Your task to perform on an android device: turn vacation reply on in the gmail app Image 0: 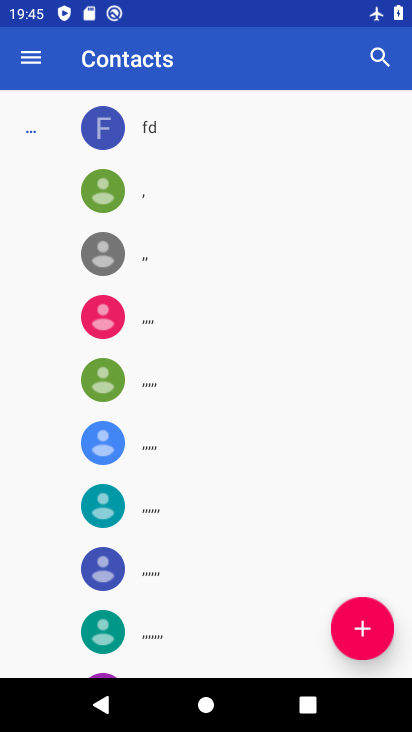
Step 0: press home button
Your task to perform on an android device: turn vacation reply on in the gmail app Image 1: 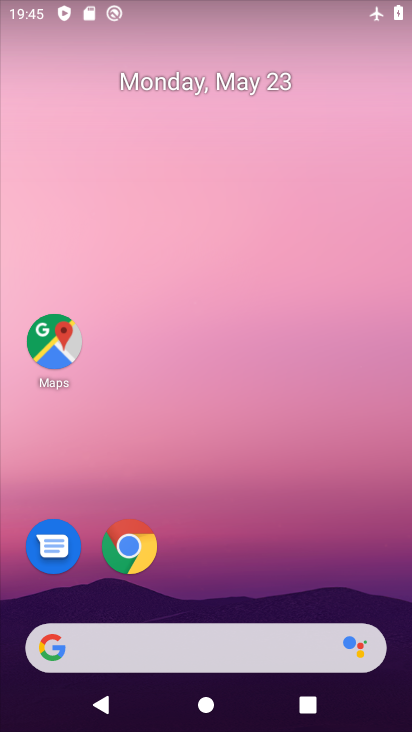
Step 1: drag from (389, 574) to (391, 183)
Your task to perform on an android device: turn vacation reply on in the gmail app Image 2: 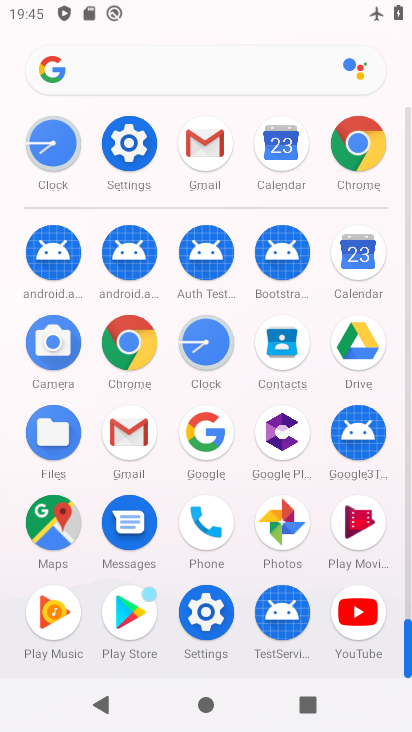
Step 2: click (130, 450)
Your task to perform on an android device: turn vacation reply on in the gmail app Image 3: 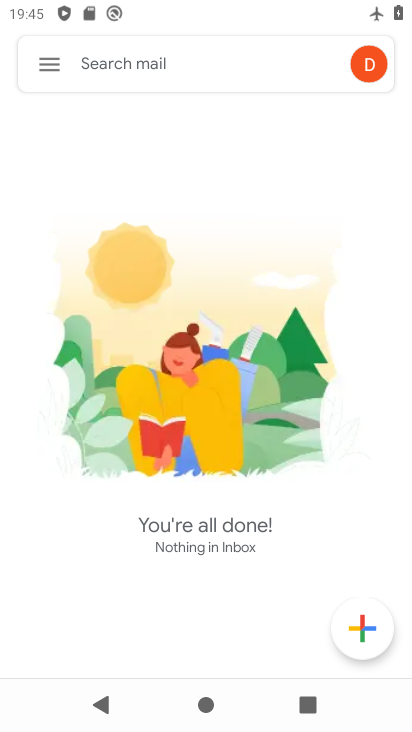
Step 3: click (48, 73)
Your task to perform on an android device: turn vacation reply on in the gmail app Image 4: 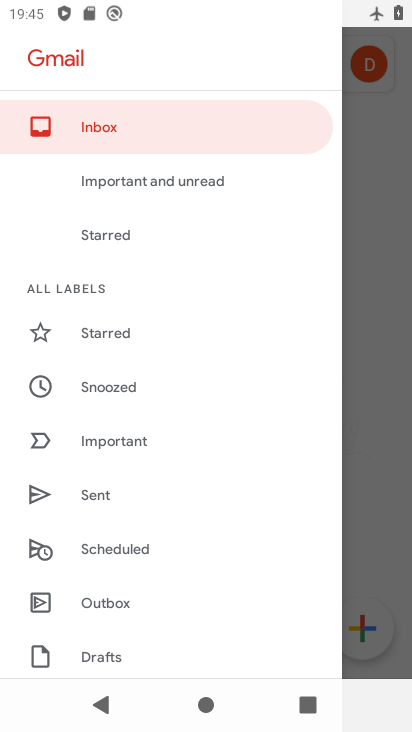
Step 4: drag from (236, 420) to (241, 349)
Your task to perform on an android device: turn vacation reply on in the gmail app Image 5: 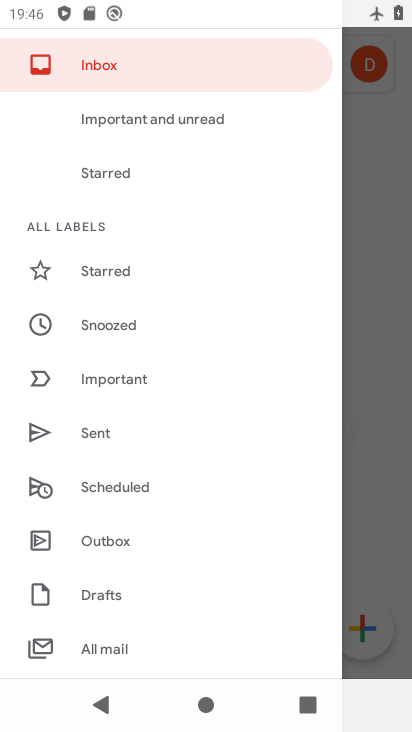
Step 5: drag from (259, 474) to (263, 392)
Your task to perform on an android device: turn vacation reply on in the gmail app Image 6: 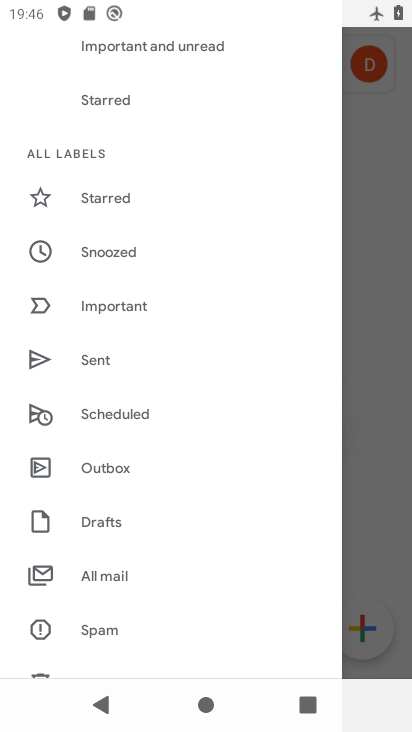
Step 6: drag from (263, 462) to (265, 390)
Your task to perform on an android device: turn vacation reply on in the gmail app Image 7: 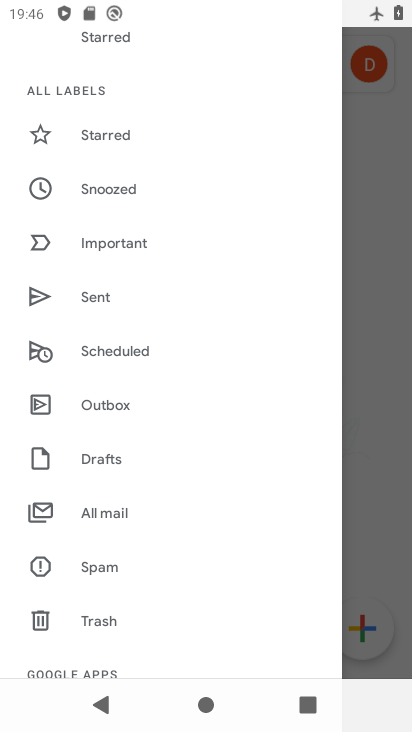
Step 7: drag from (262, 484) to (266, 415)
Your task to perform on an android device: turn vacation reply on in the gmail app Image 8: 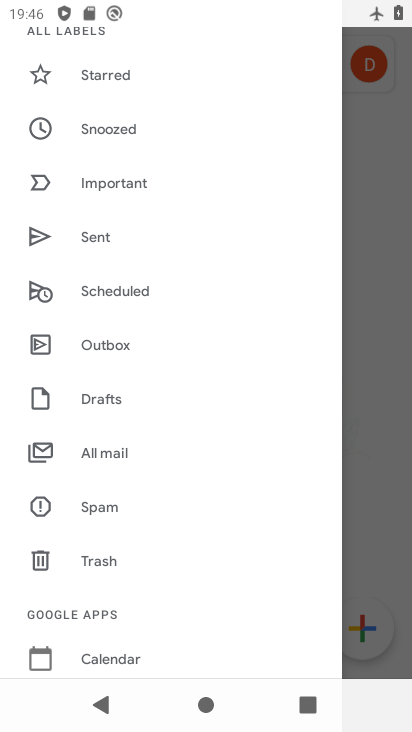
Step 8: drag from (279, 521) to (284, 444)
Your task to perform on an android device: turn vacation reply on in the gmail app Image 9: 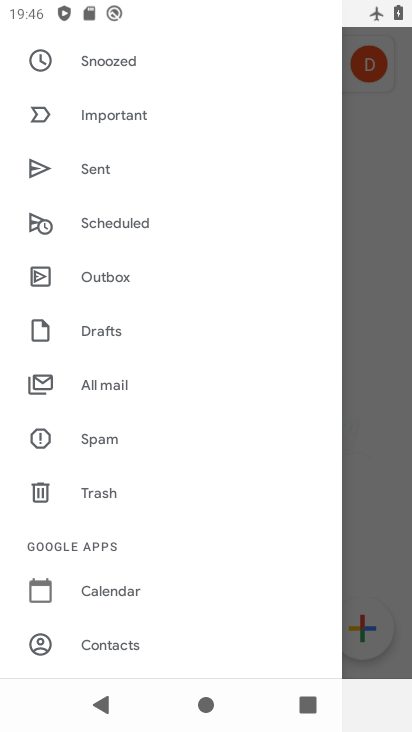
Step 9: drag from (273, 525) to (272, 415)
Your task to perform on an android device: turn vacation reply on in the gmail app Image 10: 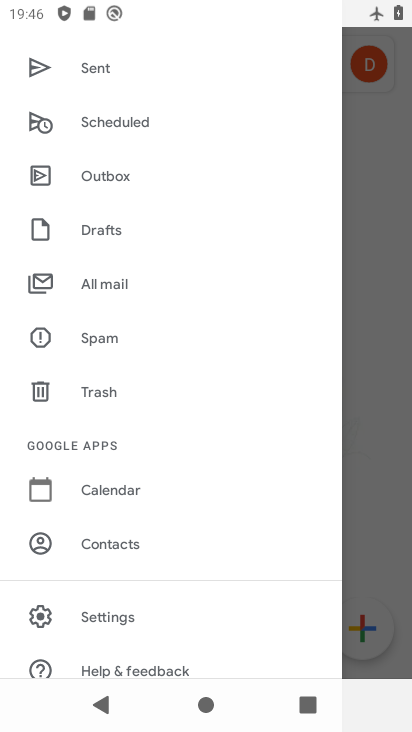
Step 10: drag from (248, 584) to (251, 484)
Your task to perform on an android device: turn vacation reply on in the gmail app Image 11: 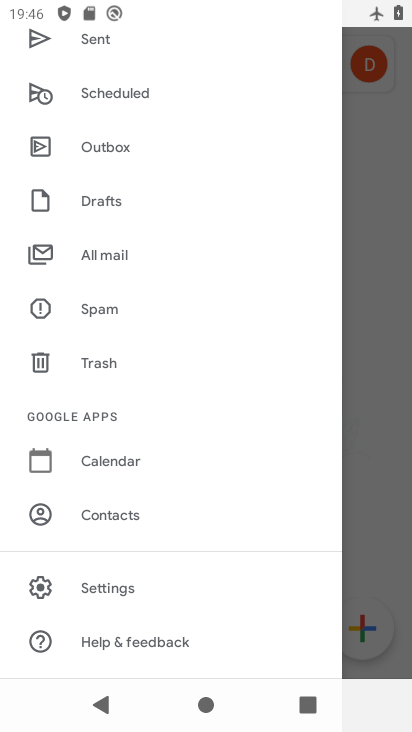
Step 11: click (184, 584)
Your task to perform on an android device: turn vacation reply on in the gmail app Image 12: 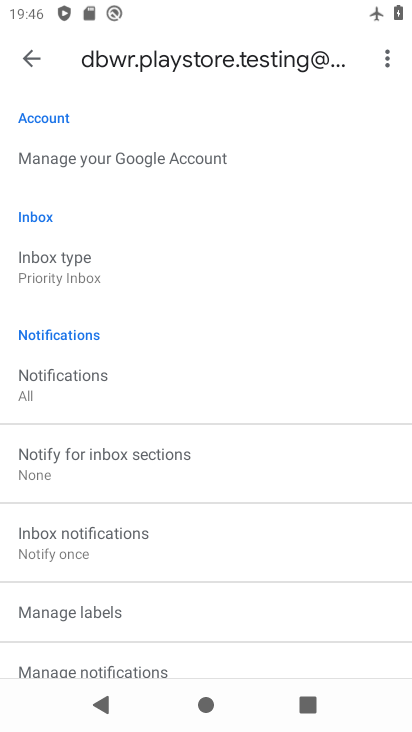
Step 12: drag from (225, 624) to (234, 531)
Your task to perform on an android device: turn vacation reply on in the gmail app Image 13: 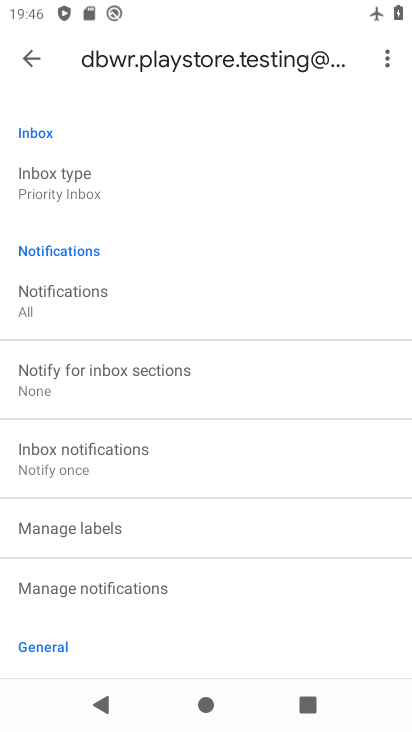
Step 13: drag from (251, 605) to (250, 532)
Your task to perform on an android device: turn vacation reply on in the gmail app Image 14: 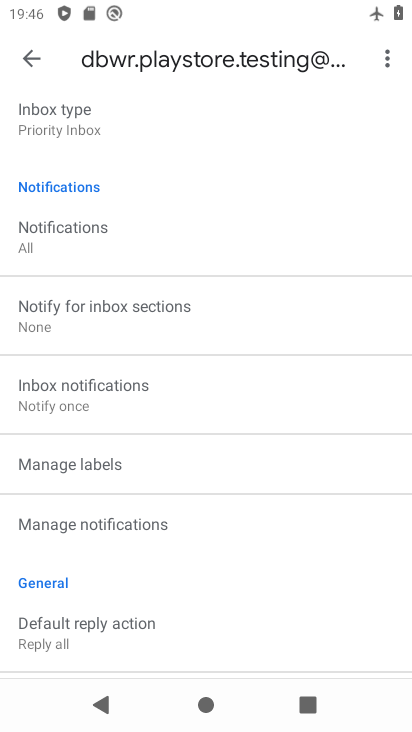
Step 14: drag from (250, 532) to (254, 474)
Your task to perform on an android device: turn vacation reply on in the gmail app Image 15: 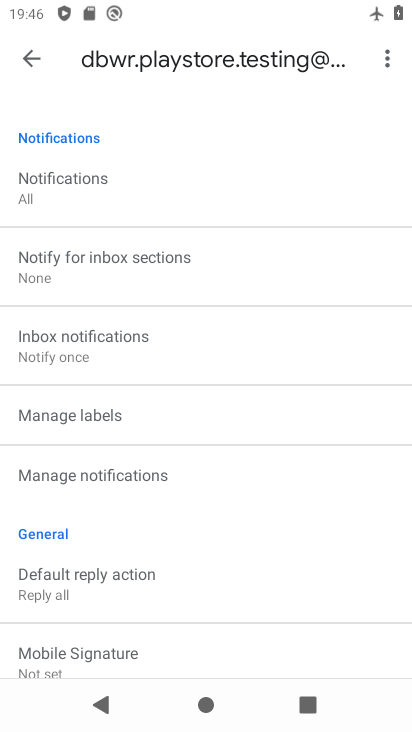
Step 15: drag from (256, 580) to (275, 471)
Your task to perform on an android device: turn vacation reply on in the gmail app Image 16: 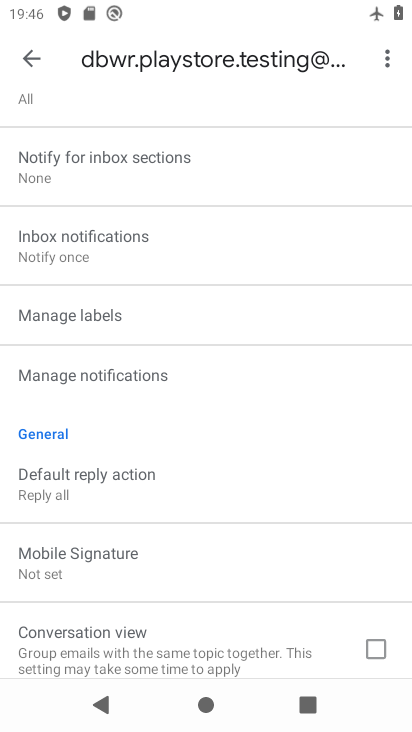
Step 16: drag from (263, 560) to (280, 478)
Your task to perform on an android device: turn vacation reply on in the gmail app Image 17: 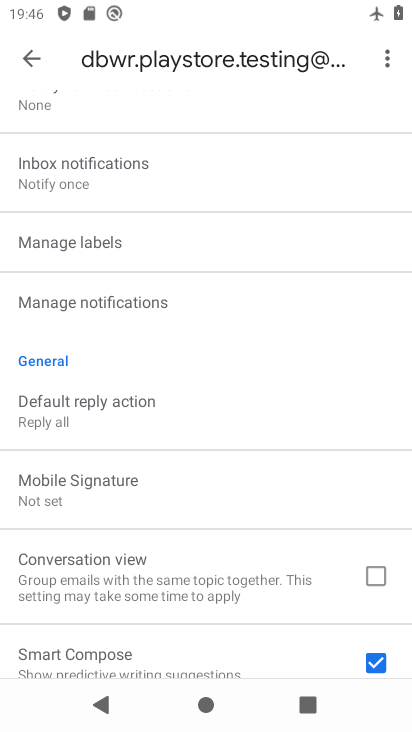
Step 17: drag from (286, 604) to (300, 507)
Your task to perform on an android device: turn vacation reply on in the gmail app Image 18: 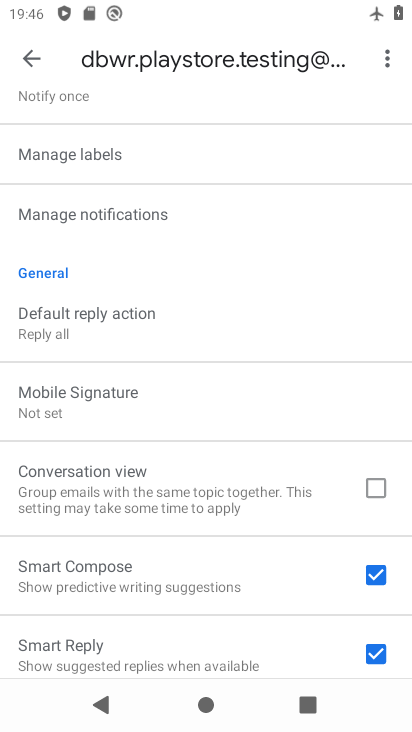
Step 18: drag from (302, 586) to (309, 502)
Your task to perform on an android device: turn vacation reply on in the gmail app Image 19: 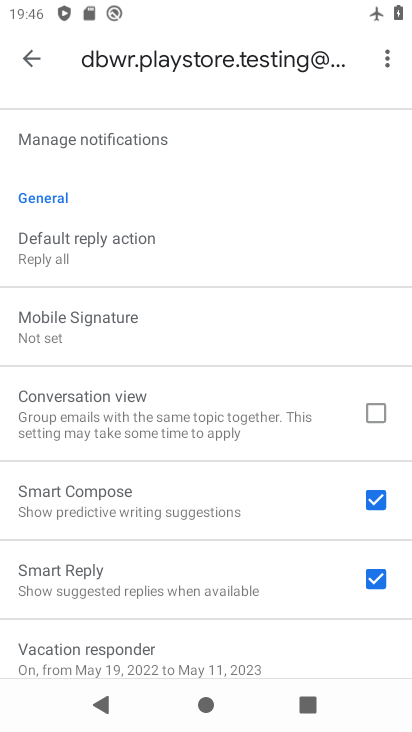
Step 19: drag from (310, 587) to (314, 491)
Your task to perform on an android device: turn vacation reply on in the gmail app Image 20: 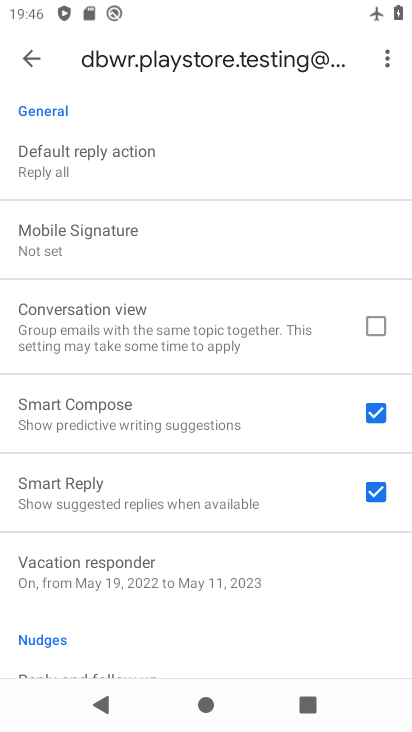
Step 20: drag from (305, 592) to (302, 482)
Your task to perform on an android device: turn vacation reply on in the gmail app Image 21: 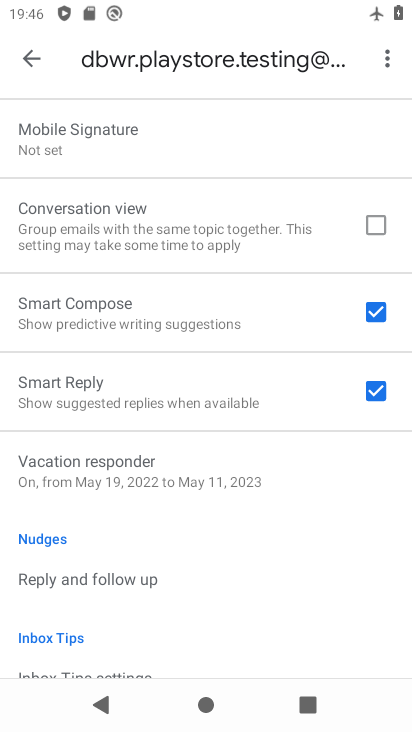
Step 21: drag from (281, 584) to (284, 511)
Your task to perform on an android device: turn vacation reply on in the gmail app Image 22: 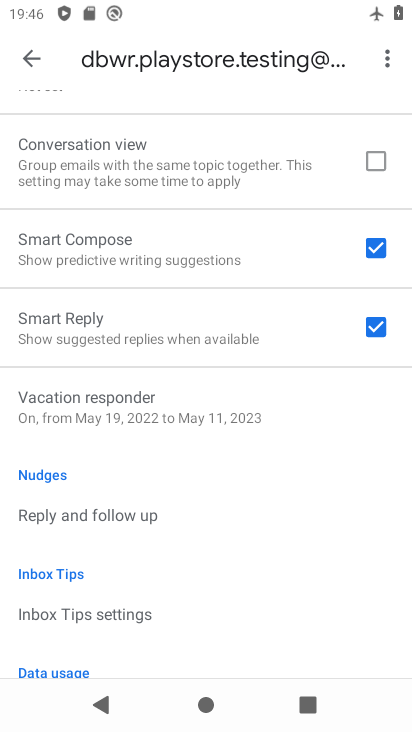
Step 22: click (249, 423)
Your task to perform on an android device: turn vacation reply on in the gmail app Image 23: 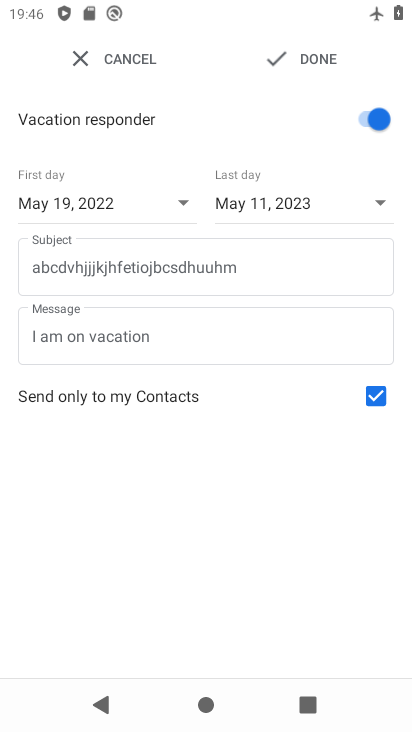
Step 23: task complete